Your task to perform on an android device: Open Chrome and go to settings Image 0: 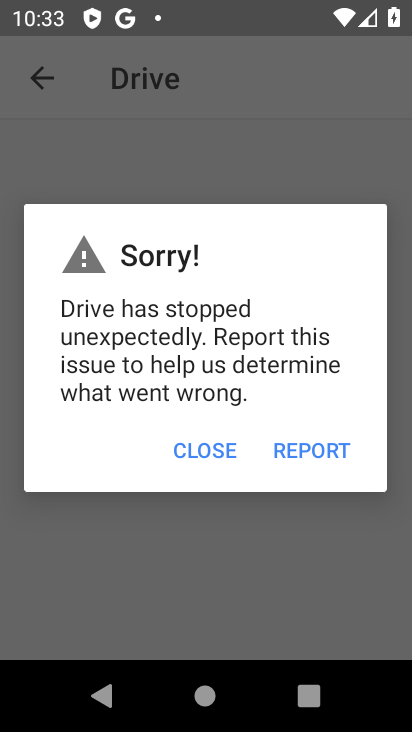
Step 0: press home button
Your task to perform on an android device: Open Chrome and go to settings Image 1: 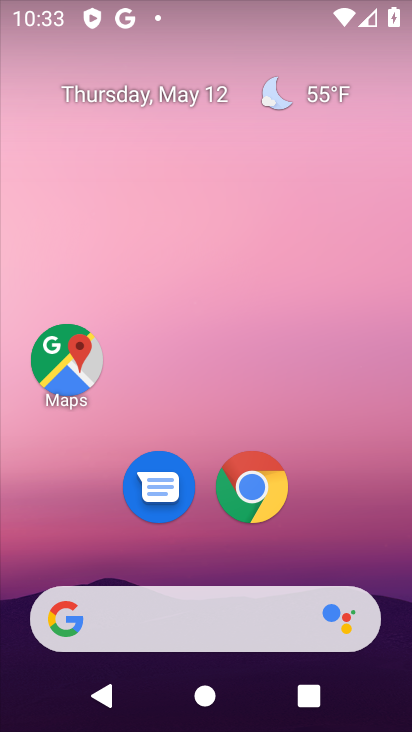
Step 1: click (257, 485)
Your task to perform on an android device: Open Chrome and go to settings Image 2: 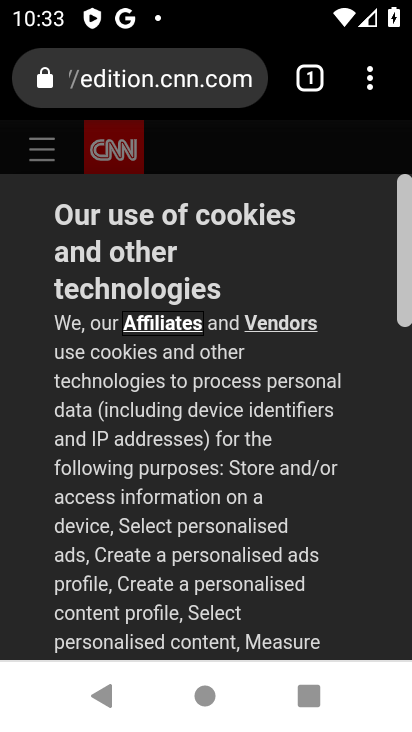
Step 2: click (372, 79)
Your task to perform on an android device: Open Chrome and go to settings Image 3: 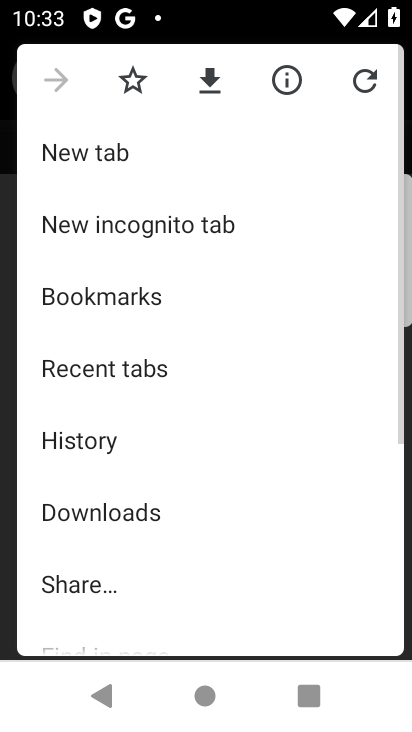
Step 3: drag from (238, 543) to (221, 115)
Your task to perform on an android device: Open Chrome and go to settings Image 4: 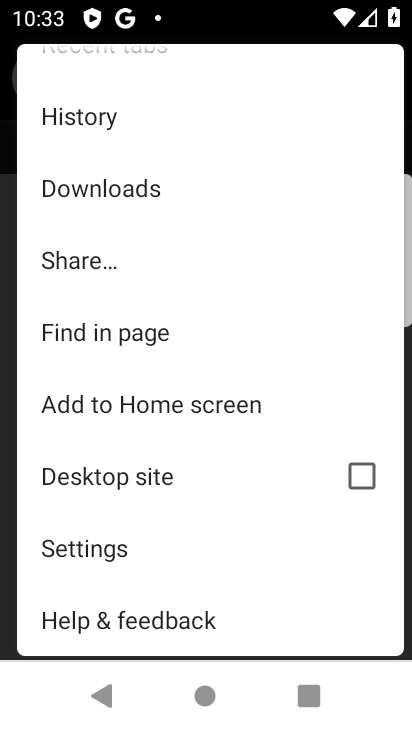
Step 4: click (90, 547)
Your task to perform on an android device: Open Chrome and go to settings Image 5: 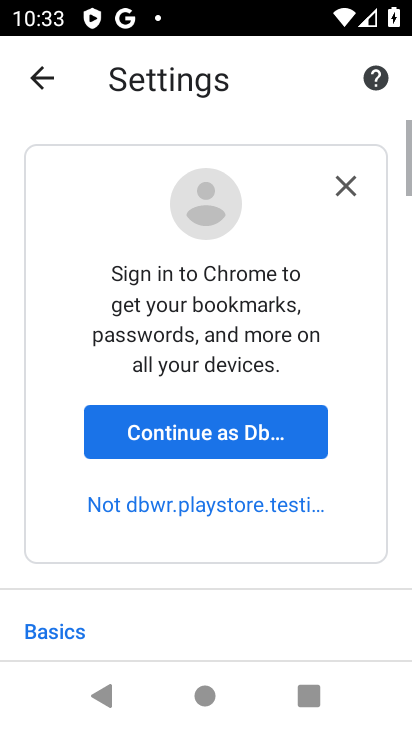
Step 5: task complete